Your task to perform on an android device: When is my next appointment? Image 0: 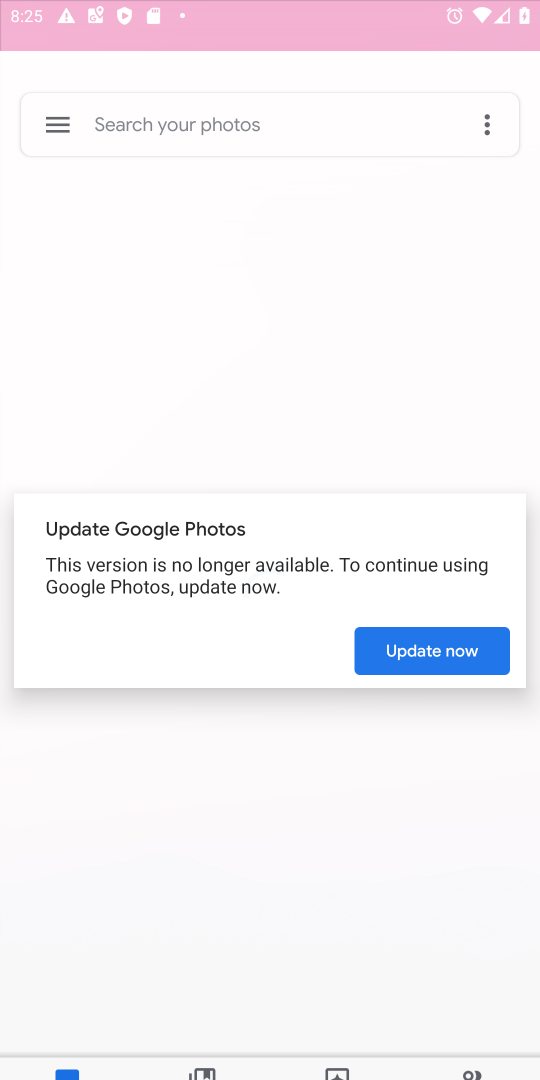
Step 0: press home button
Your task to perform on an android device: When is my next appointment? Image 1: 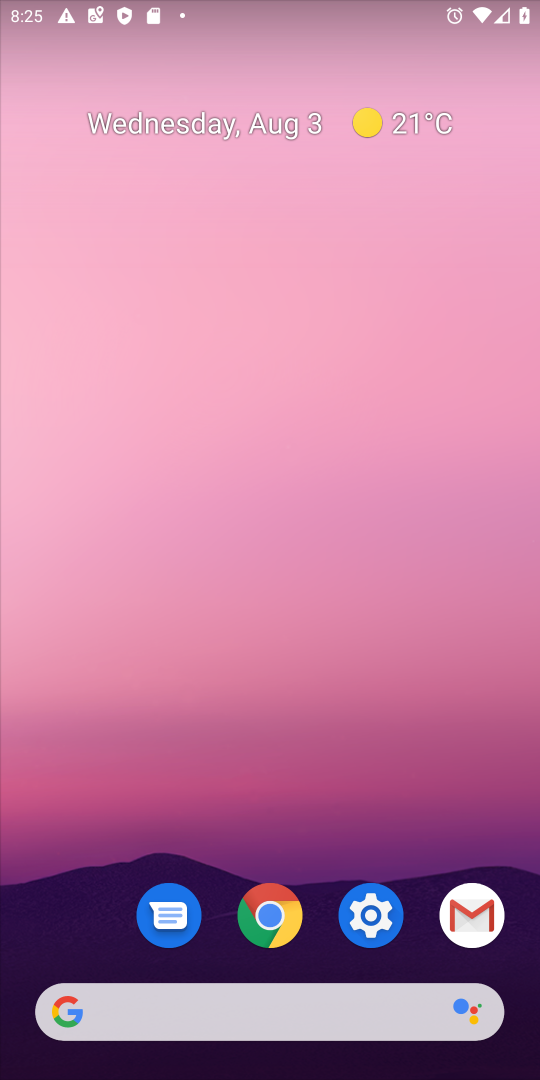
Step 1: drag from (332, 1004) to (372, 437)
Your task to perform on an android device: When is my next appointment? Image 2: 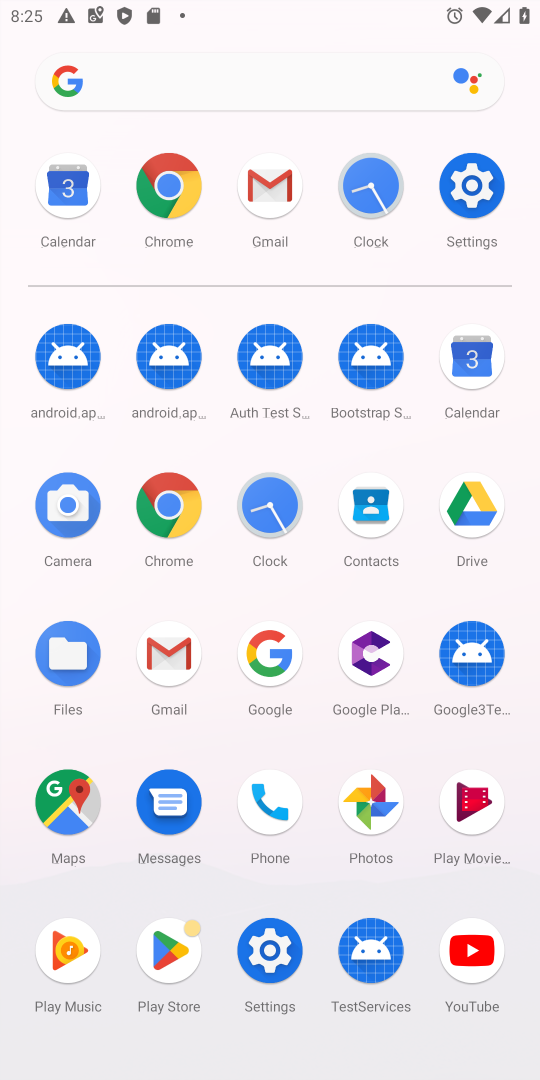
Step 2: click (469, 378)
Your task to perform on an android device: When is my next appointment? Image 3: 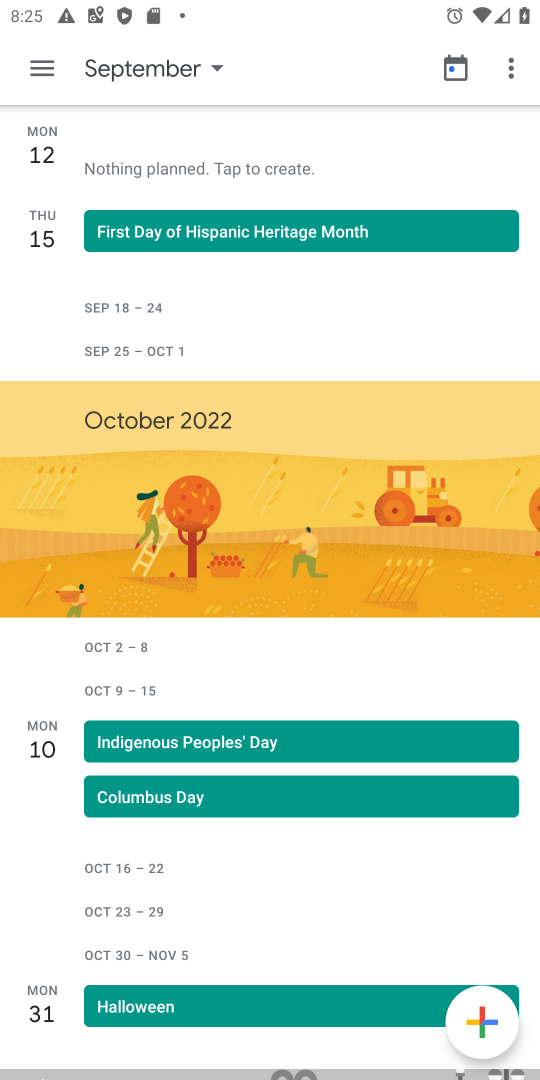
Step 3: click (34, 82)
Your task to perform on an android device: When is my next appointment? Image 4: 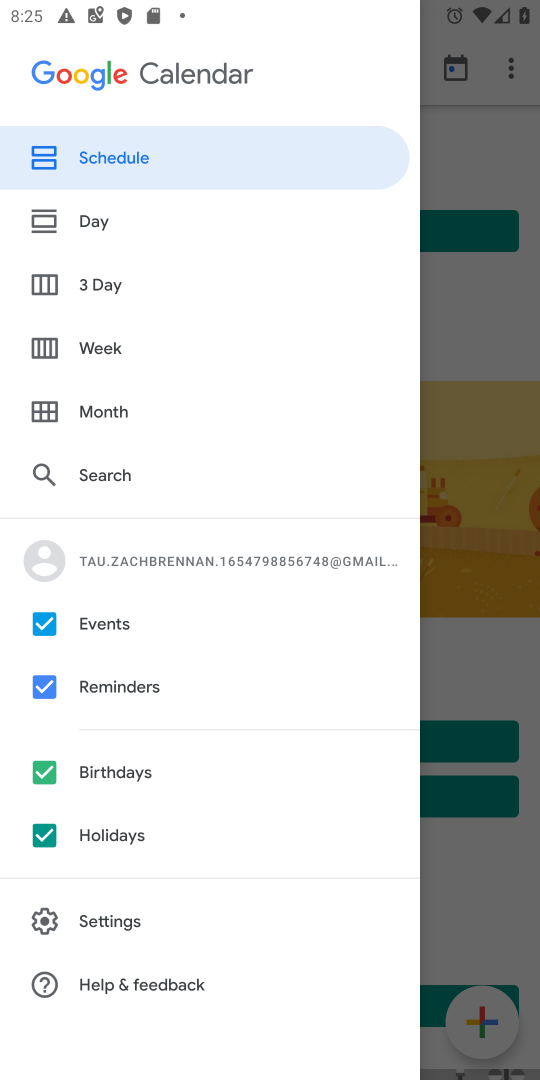
Step 4: click (119, 167)
Your task to perform on an android device: When is my next appointment? Image 5: 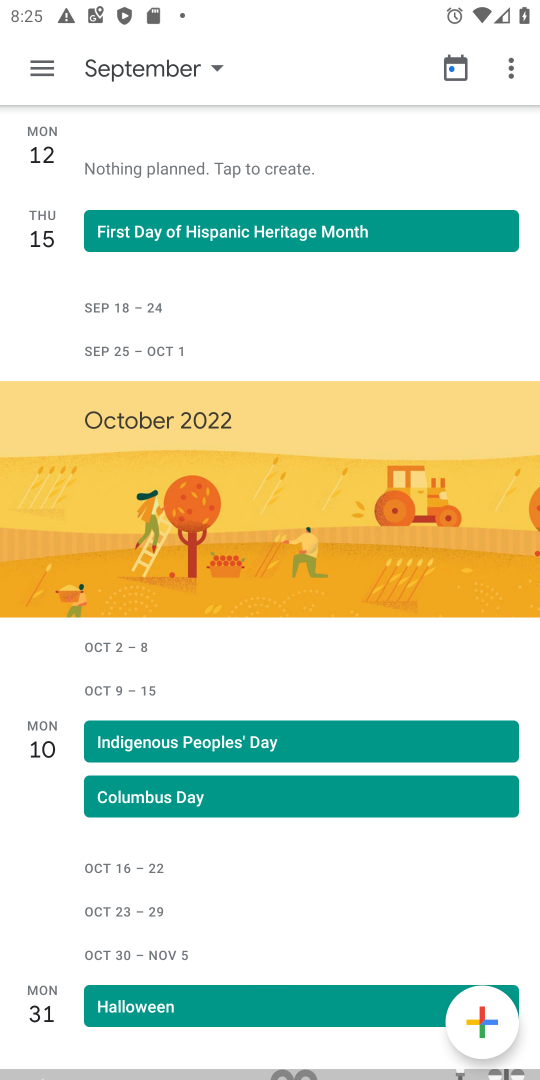
Step 5: click (60, 66)
Your task to perform on an android device: When is my next appointment? Image 6: 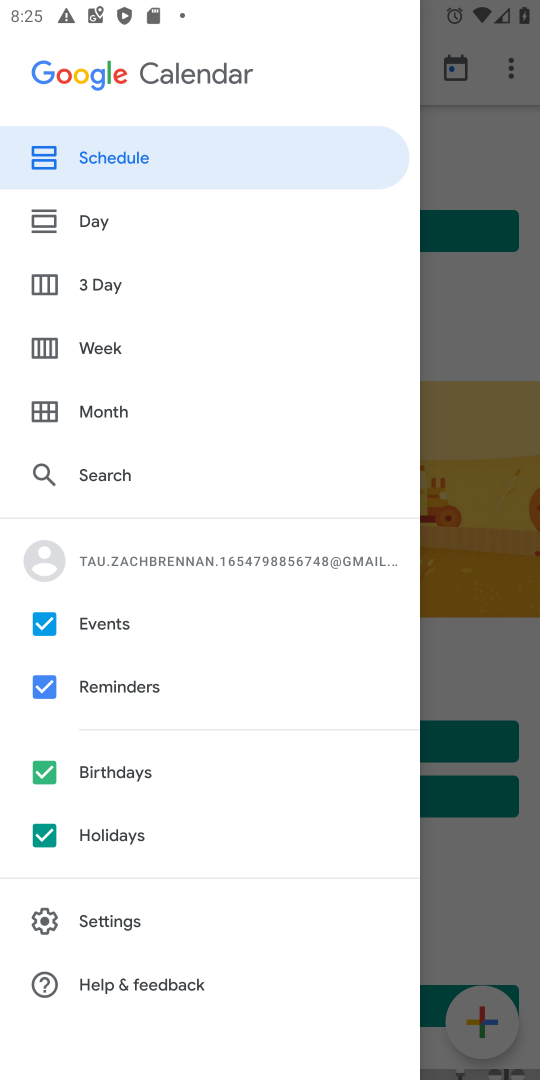
Step 6: click (78, 420)
Your task to perform on an android device: When is my next appointment? Image 7: 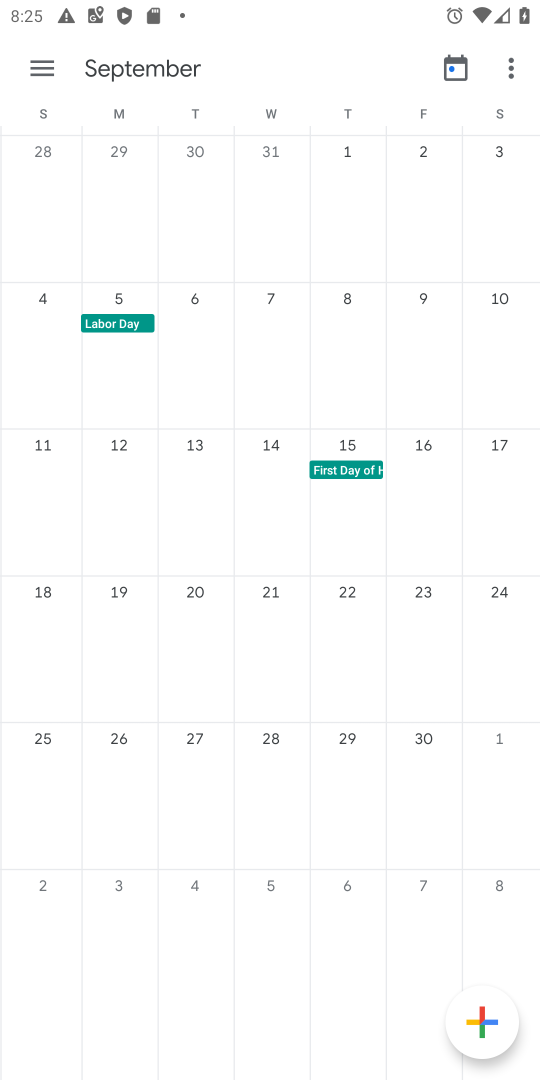
Step 7: drag from (73, 496) to (510, 291)
Your task to perform on an android device: When is my next appointment? Image 8: 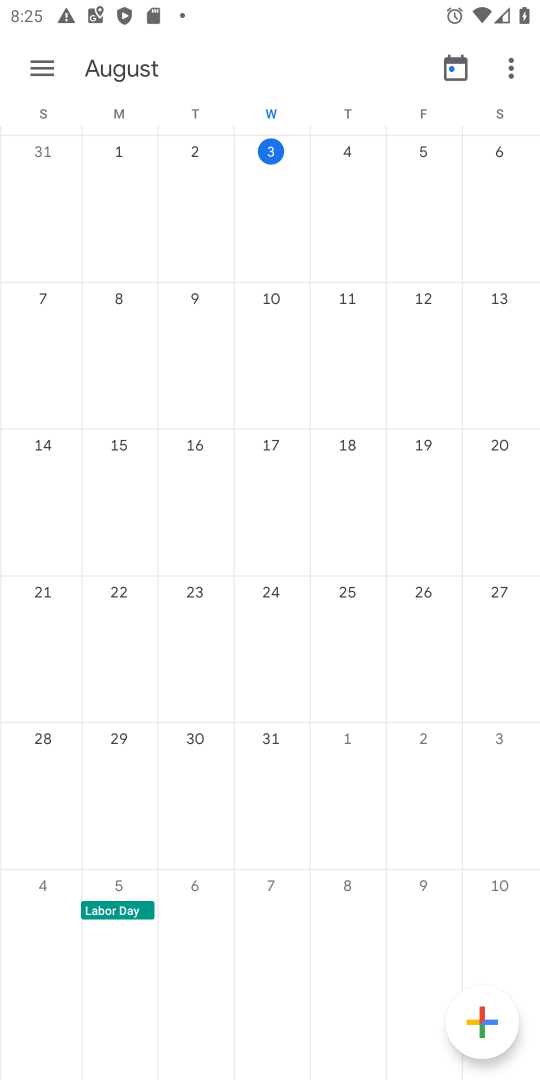
Step 8: click (61, 72)
Your task to perform on an android device: When is my next appointment? Image 9: 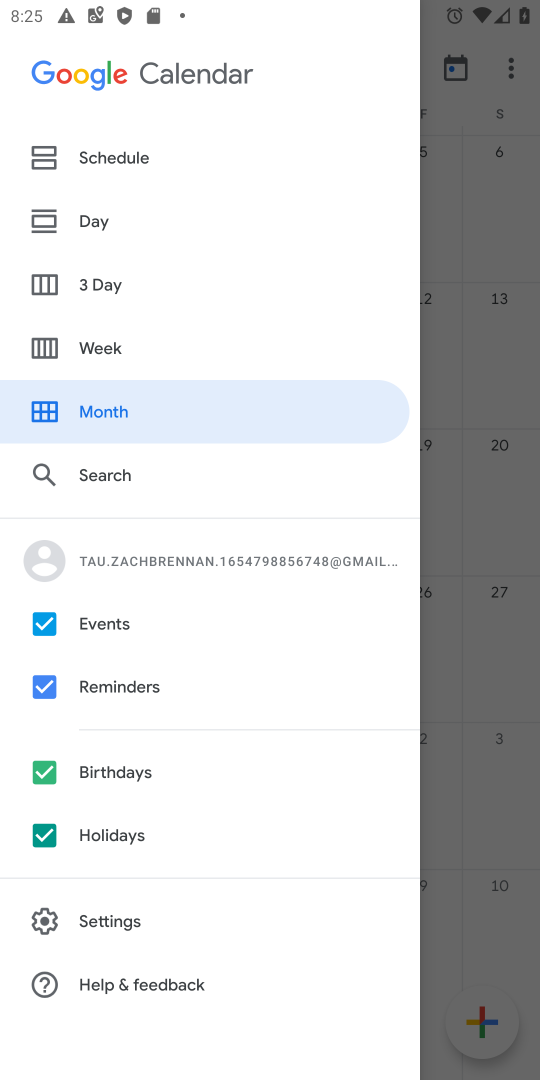
Step 9: click (136, 152)
Your task to perform on an android device: When is my next appointment? Image 10: 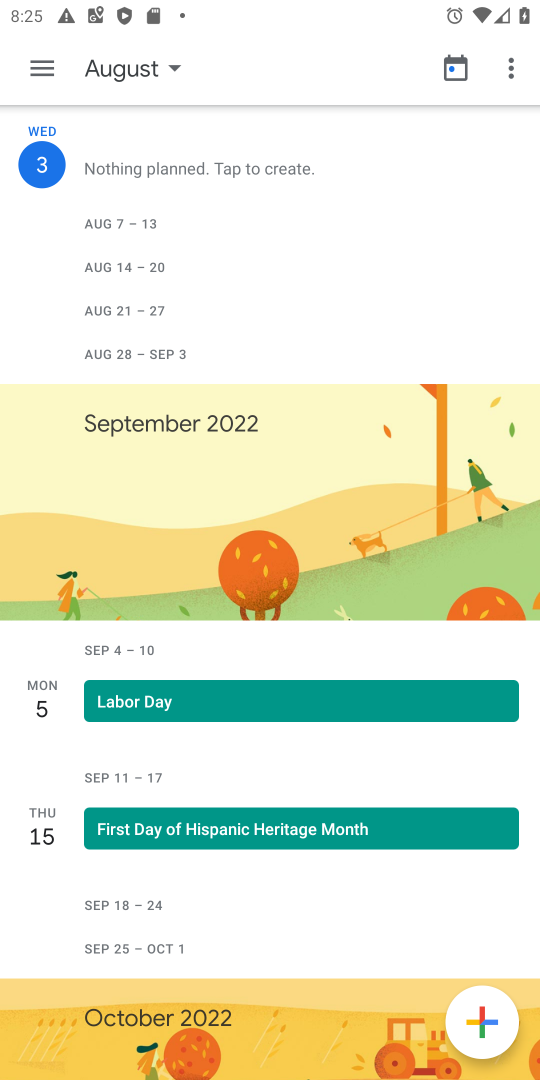
Step 10: task complete